Your task to perform on an android device: Open Chrome and go to settings Image 0: 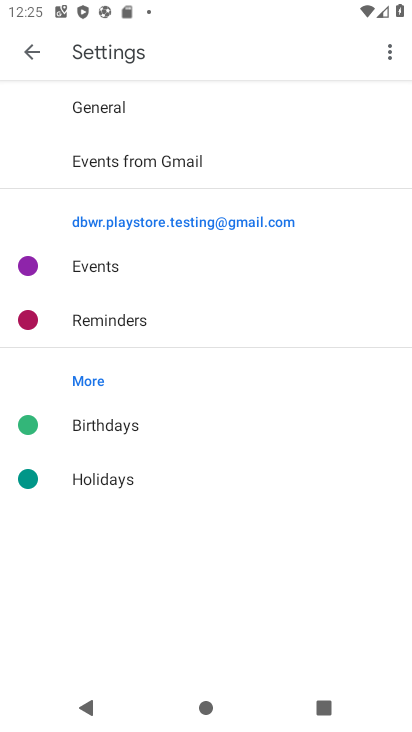
Step 0: press back button
Your task to perform on an android device: Open Chrome and go to settings Image 1: 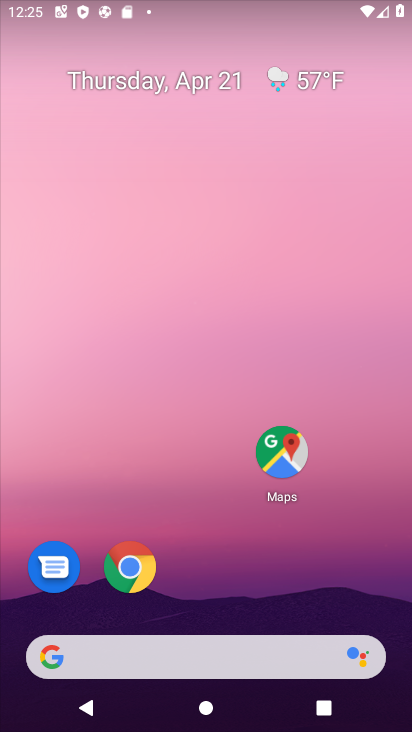
Step 1: click (135, 580)
Your task to perform on an android device: Open Chrome and go to settings Image 2: 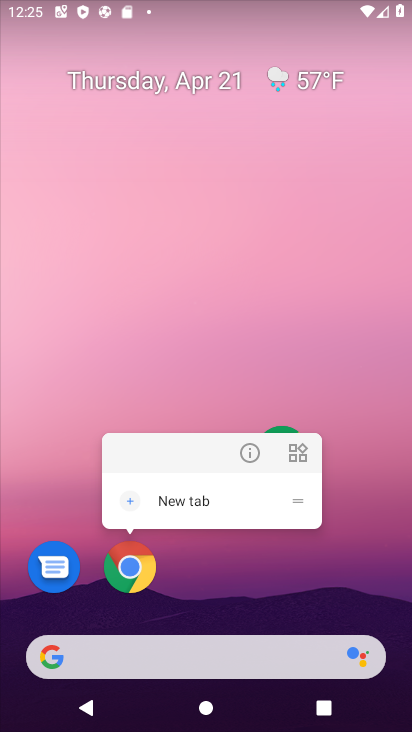
Step 2: click (136, 566)
Your task to perform on an android device: Open Chrome and go to settings Image 3: 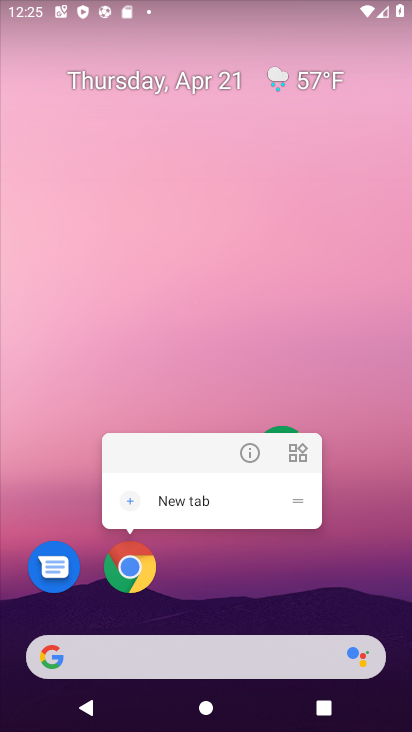
Step 3: click (134, 570)
Your task to perform on an android device: Open Chrome and go to settings Image 4: 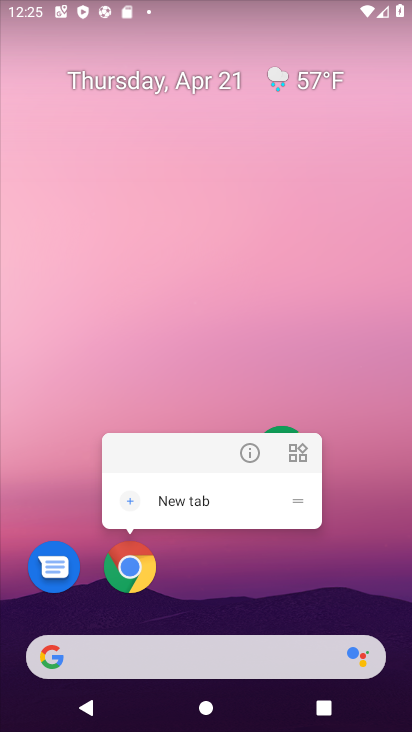
Step 4: click (140, 570)
Your task to perform on an android device: Open Chrome and go to settings Image 5: 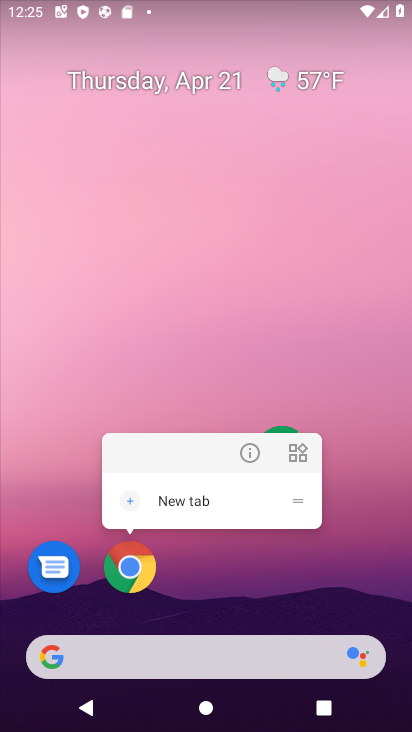
Step 5: click (148, 564)
Your task to perform on an android device: Open Chrome and go to settings Image 6: 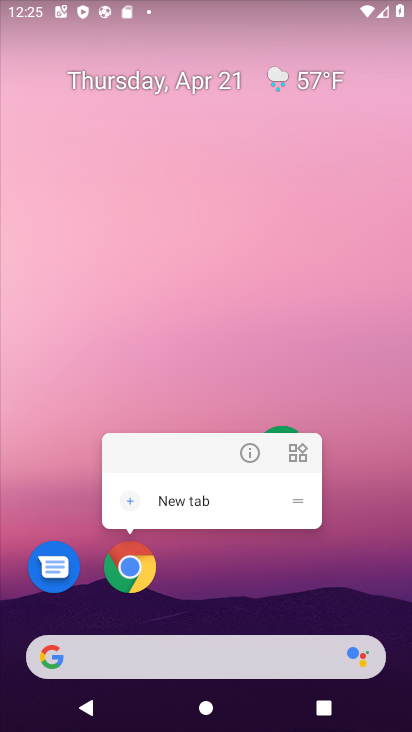
Step 6: click (137, 563)
Your task to perform on an android device: Open Chrome and go to settings Image 7: 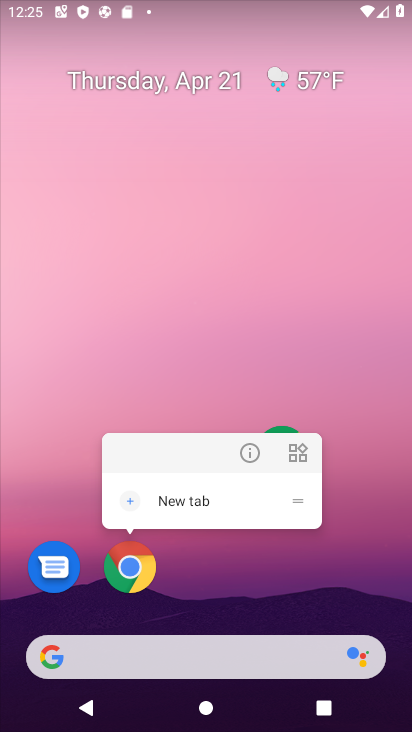
Step 7: click (123, 548)
Your task to perform on an android device: Open Chrome and go to settings Image 8: 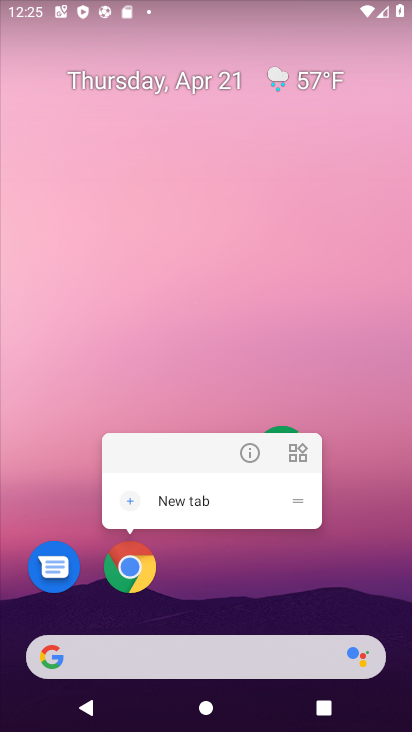
Step 8: click (130, 573)
Your task to perform on an android device: Open Chrome and go to settings Image 9: 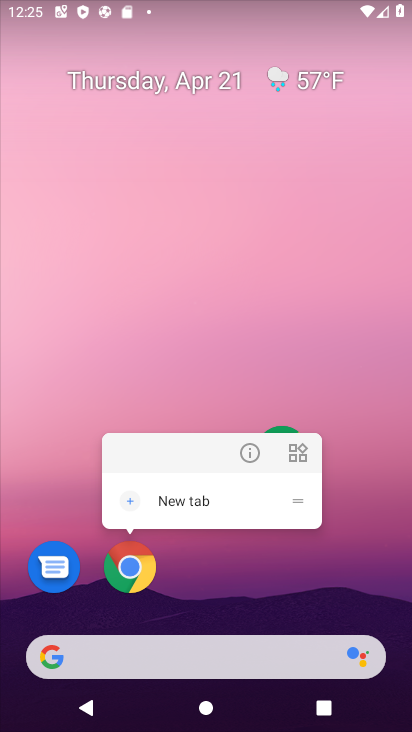
Step 9: click (139, 575)
Your task to perform on an android device: Open Chrome and go to settings Image 10: 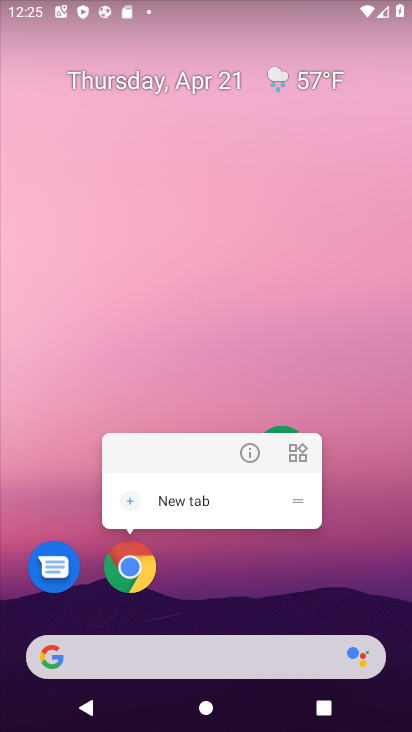
Step 10: click (125, 575)
Your task to perform on an android device: Open Chrome and go to settings Image 11: 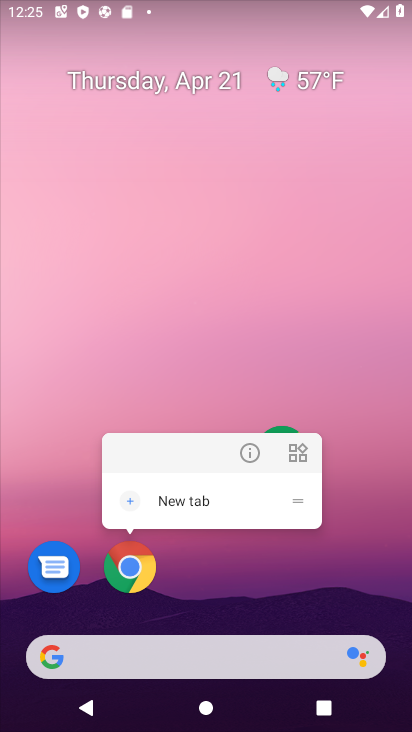
Step 11: drag from (210, 607) to (326, 25)
Your task to perform on an android device: Open Chrome and go to settings Image 12: 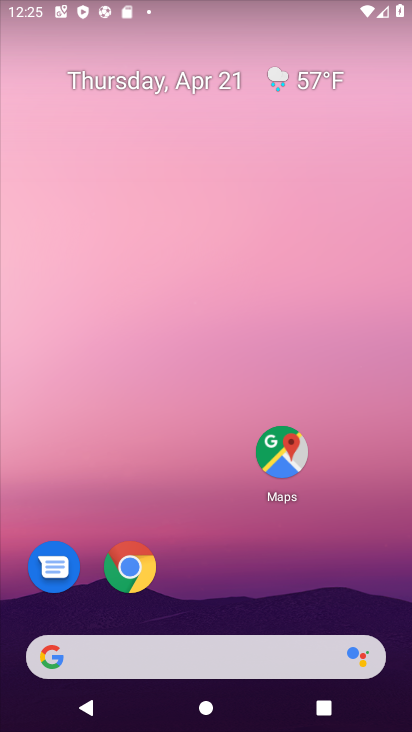
Step 12: drag from (194, 500) to (279, 73)
Your task to perform on an android device: Open Chrome and go to settings Image 13: 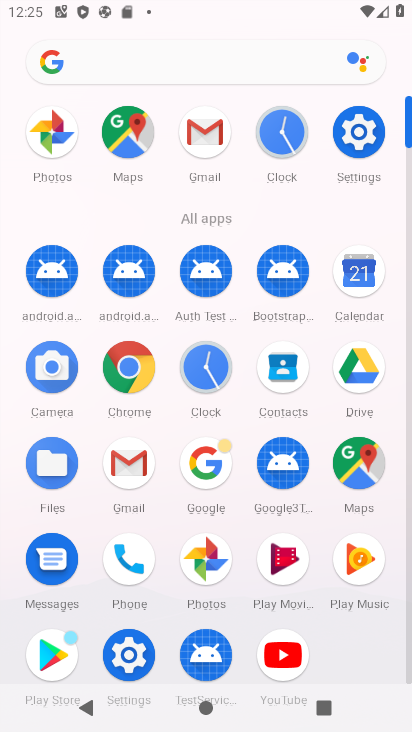
Step 13: click (131, 369)
Your task to perform on an android device: Open Chrome and go to settings Image 14: 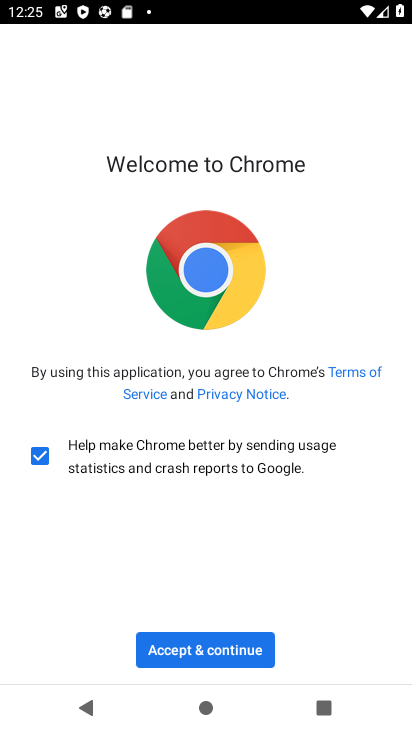
Step 14: click (228, 661)
Your task to perform on an android device: Open Chrome and go to settings Image 15: 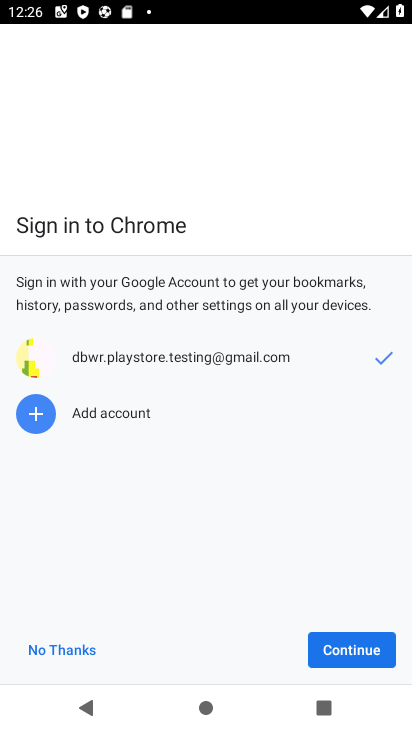
Step 15: click (378, 655)
Your task to perform on an android device: Open Chrome and go to settings Image 16: 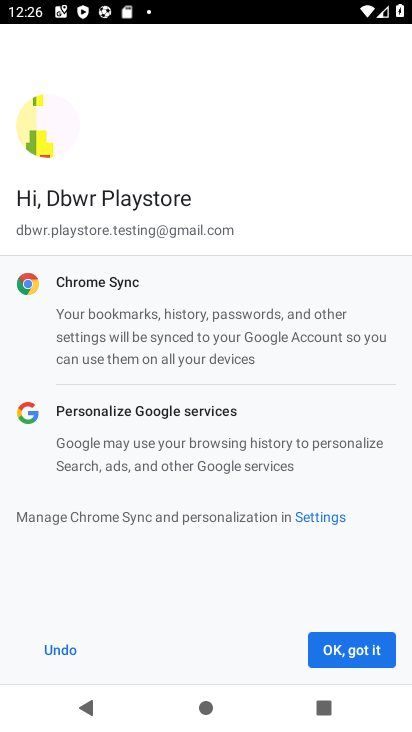
Step 16: click (378, 655)
Your task to perform on an android device: Open Chrome and go to settings Image 17: 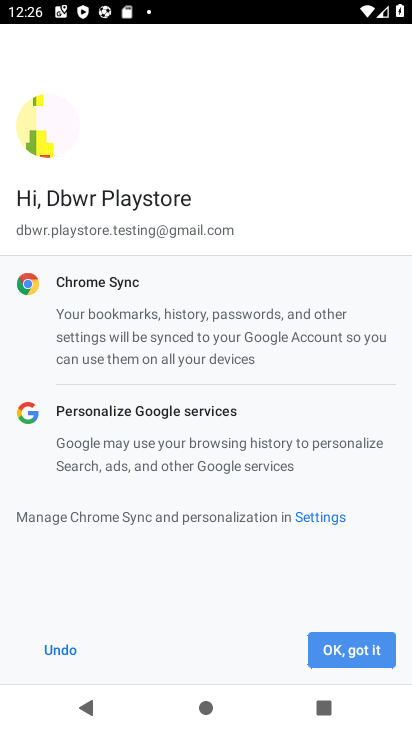
Step 17: click (374, 655)
Your task to perform on an android device: Open Chrome and go to settings Image 18: 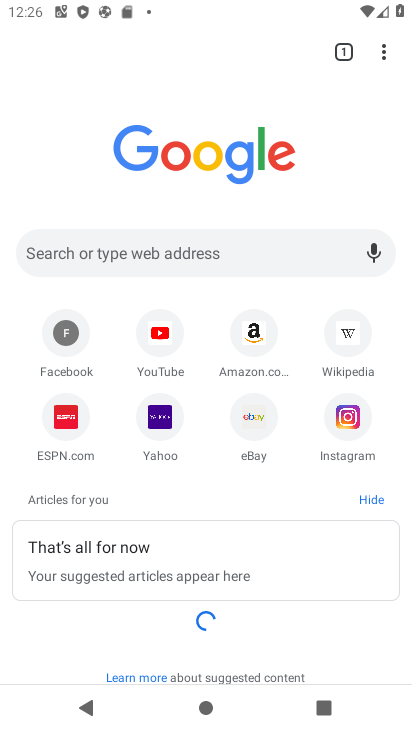
Step 18: click (384, 48)
Your task to perform on an android device: Open Chrome and go to settings Image 19: 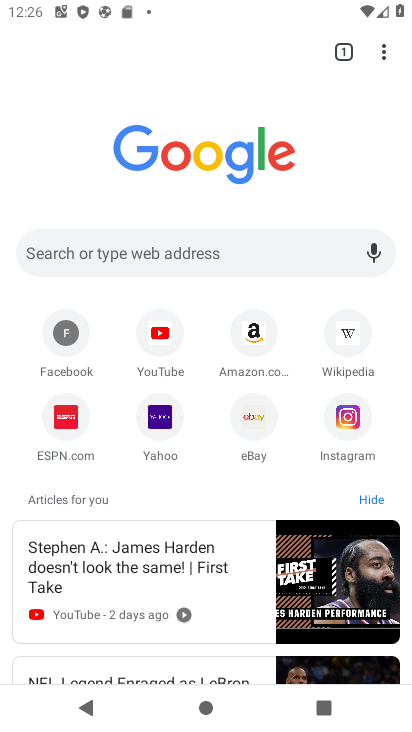
Step 19: task complete